Your task to perform on an android device: all mails in gmail Image 0: 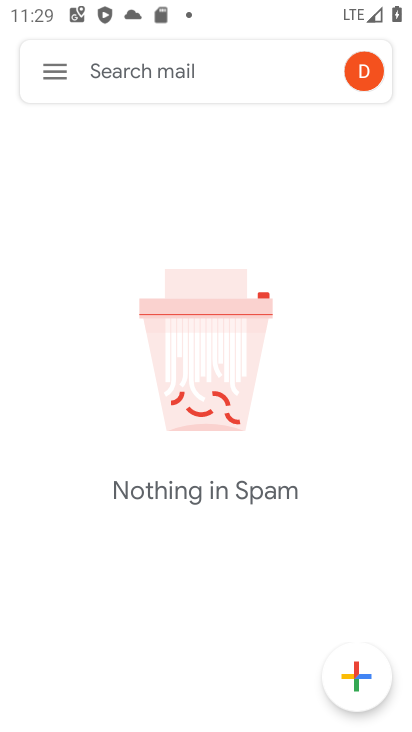
Step 0: click (57, 73)
Your task to perform on an android device: all mails in gmail Image 1: 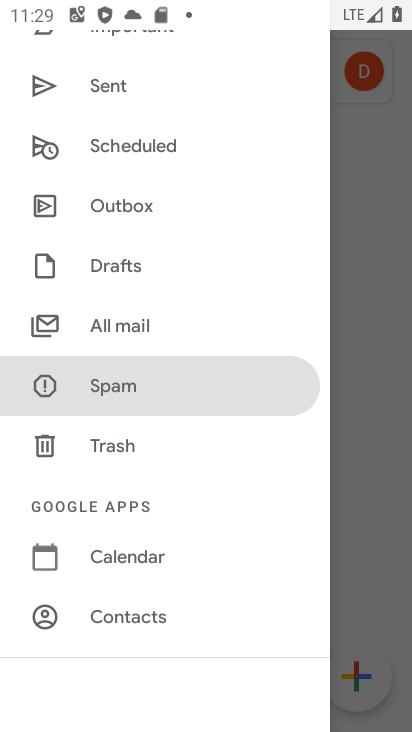
Step 1: click (131, 312)
Your task to perform on an android device: all mails in gmail Image 2: 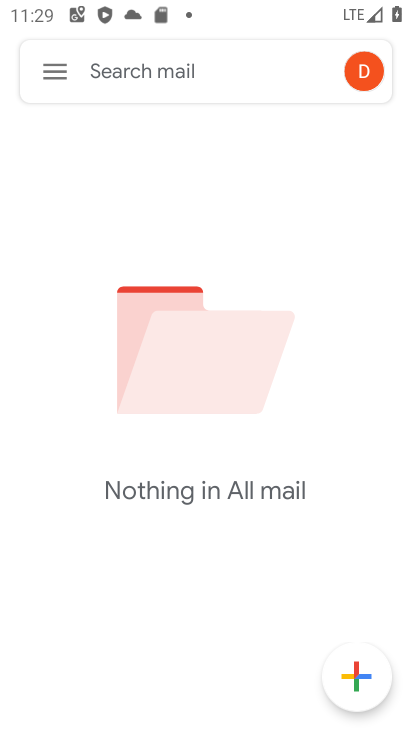
Step 2: task complete